Your task to perform on an android device: Open calendar and show me the first week of next month Image 0: 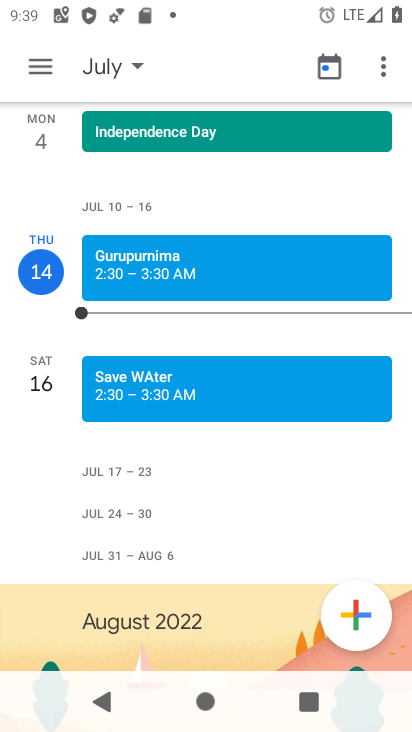
Step 0: click (34, 56)
Your task to perform on an android device: Open calendar and show me the first week of next month Image 1: 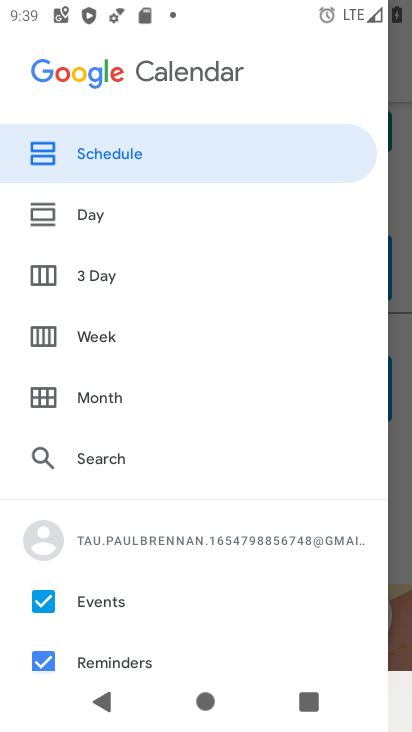
Step 1: click (52, 396)
Your task to perform on an android device: Open calendar and show me the first week of next month Image 2: 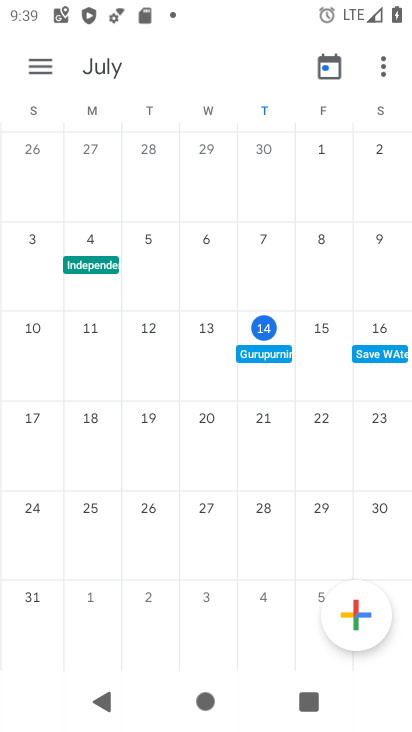
Step 2: drag from (329, 431) to (37, 452)
Your task to perform on an android device: Open calendar and show me the first week of next month Image 3: 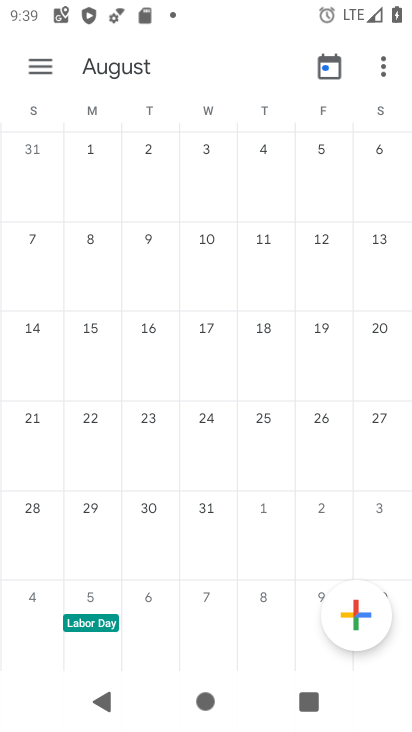
Step 3: click (45, 250)
Your task to perform on an android device: Open calendar and show me the first week of next month Image 4: 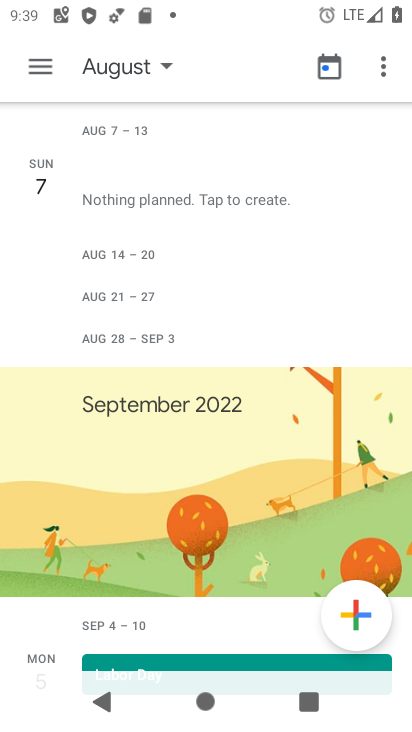
Step 4: click (51, 68)
Your task to perform on an android device: Open calendar and show me the first week of next month Image 5: 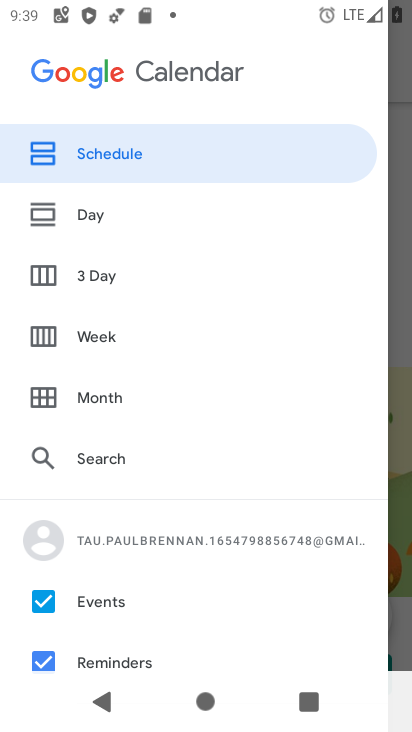
Step 5: click (47, 332)
Your task to perform on an android device: Open calendar and show me the first week of next month Image 6: 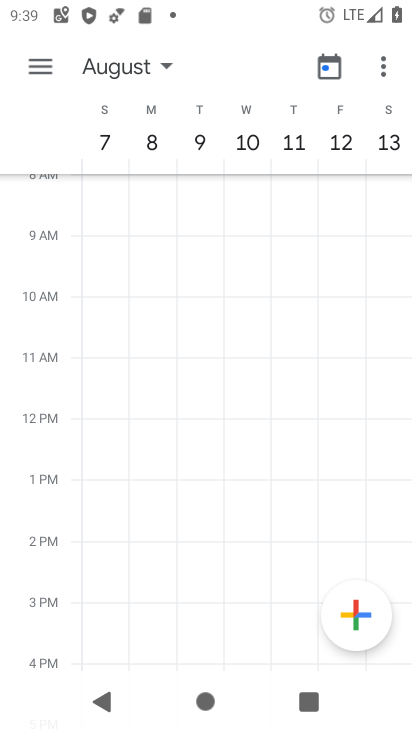
Step 6: task complete